Your task to perform on an android device: Go to notification settings Image 0: 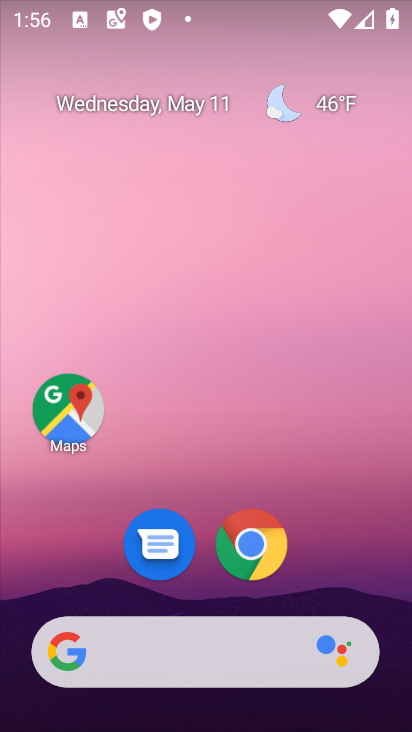
Step 0: drag from (401, 659) to (279, 145)
Your task to perform on an android device: Go to notification settings Image 1: 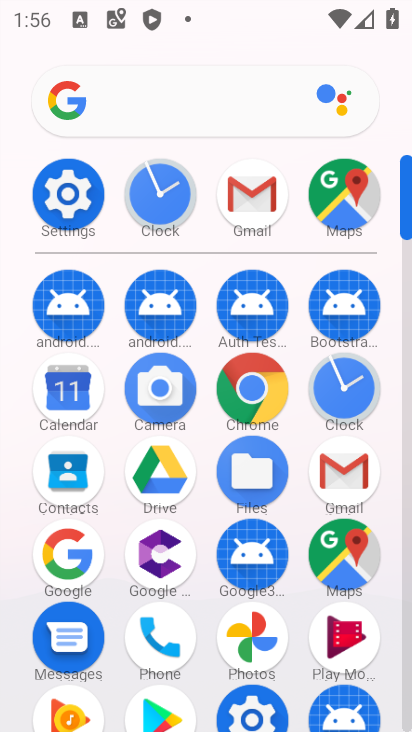
Step 1: click (406, 713)
Your task to perform on an android device: Go to notification settings Image 2: 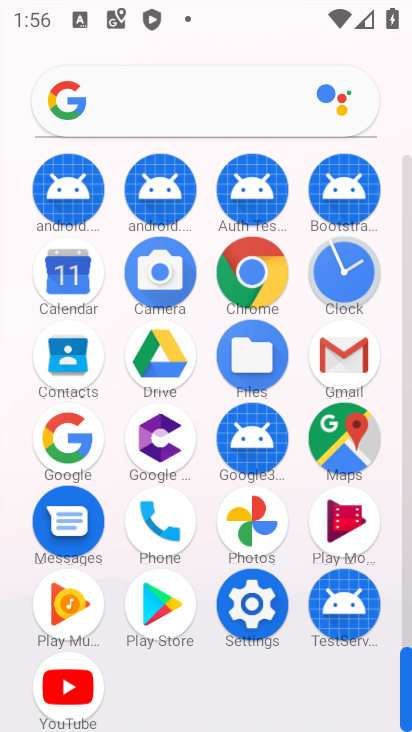
Step 2: click (251, 601)
Your task to perform on an android device: Go to notification settings Image 3: 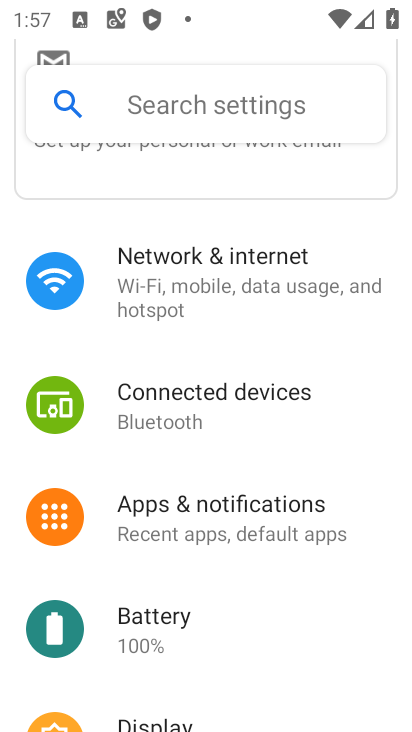
Step 3: click (161, 505)
Your task to perform on an android device: Go to notification settings Image 4: 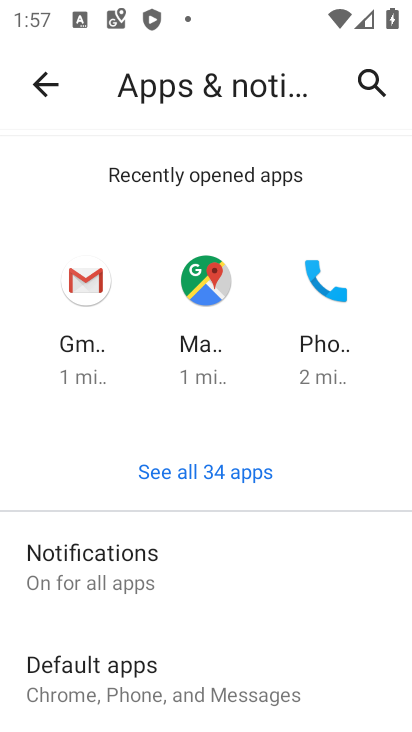
Step 4: click (83, 563)
Your task to perform on an android device: Go to notification settings Image 5: 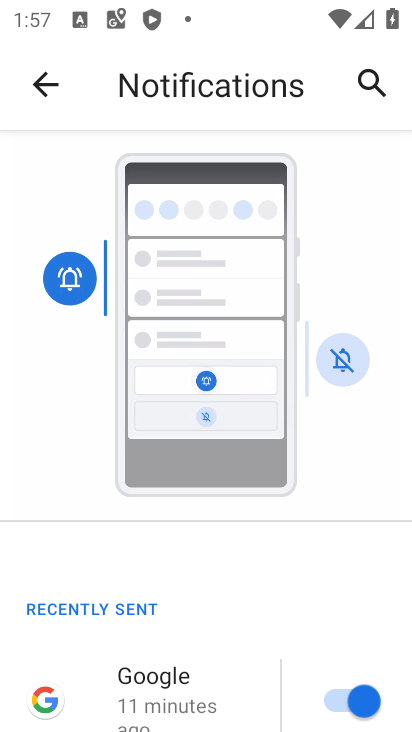
Step 5: drag from (283, 685) to (249, 164)
Your task to perform on an android device: Go to notification settings Image 6: 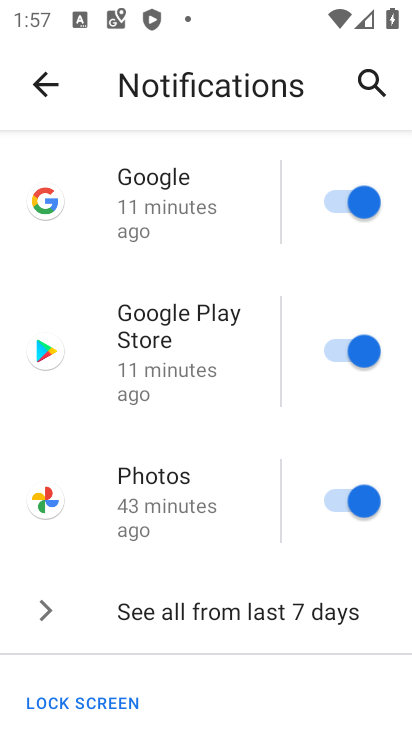
Step 6: drag from (267, 646) to (268, 105)
Your task to perform on an android device: Go to notification settings Image 7: 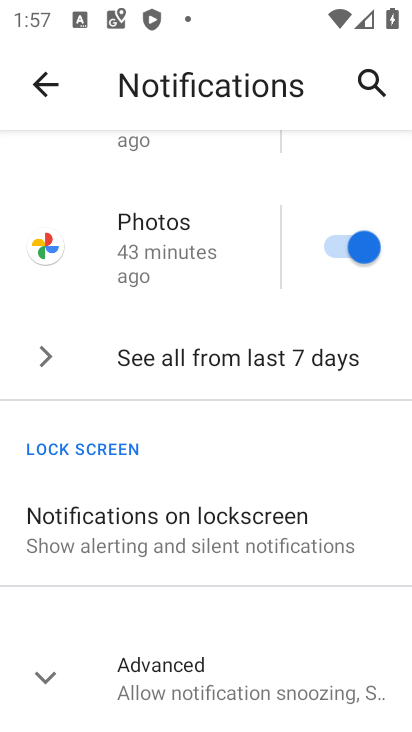
Step 7: click (39, 677)
Your task to perform on an android device: Go to notification settings Image 8: 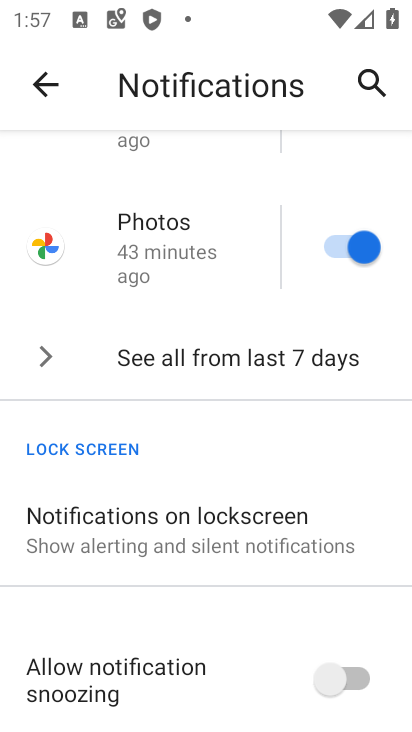
Step 8: task complete